Your task to perform on an android device: Google the capital of Canada Image 0: 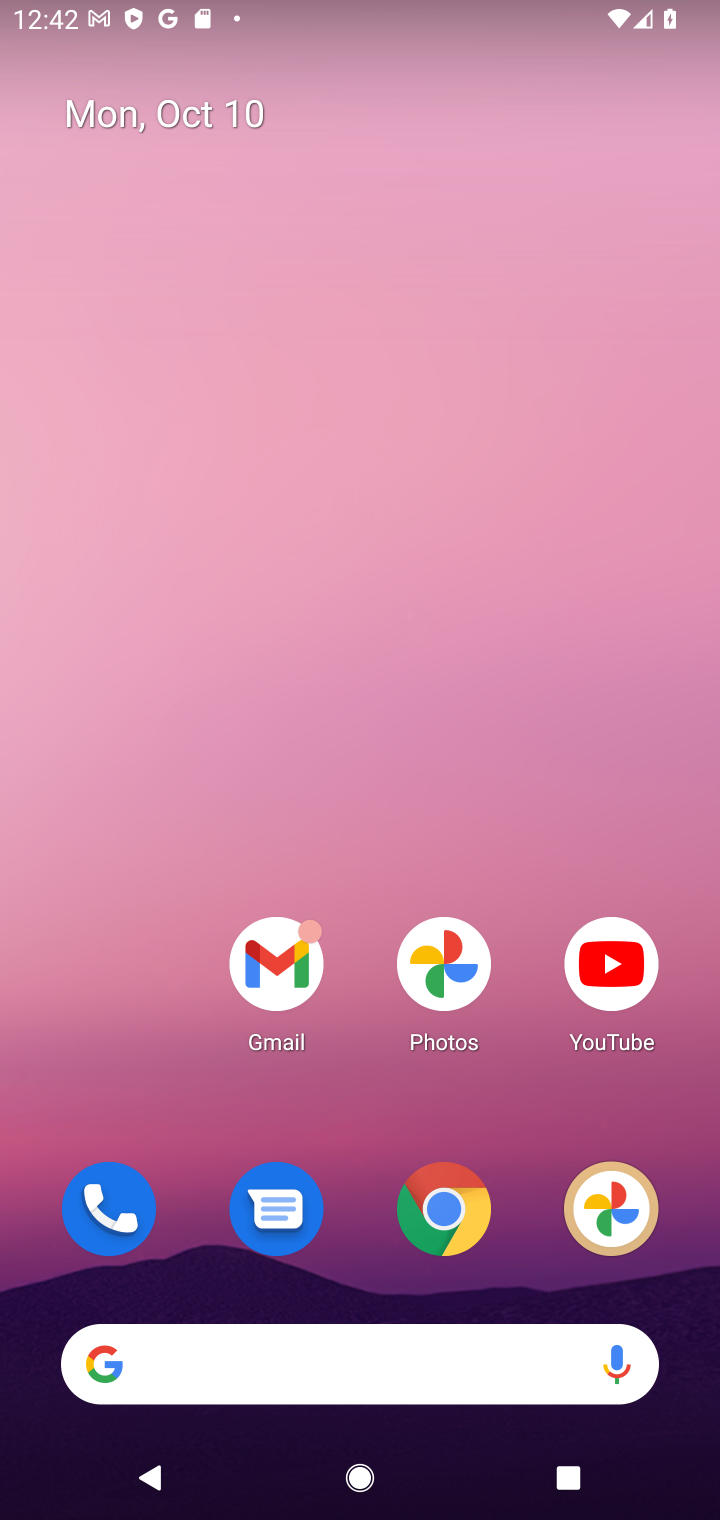
Step 0: drag from (433, 511) to (433, 233)
Your task to perform on an android device: Google the capital of Canada Image 1: 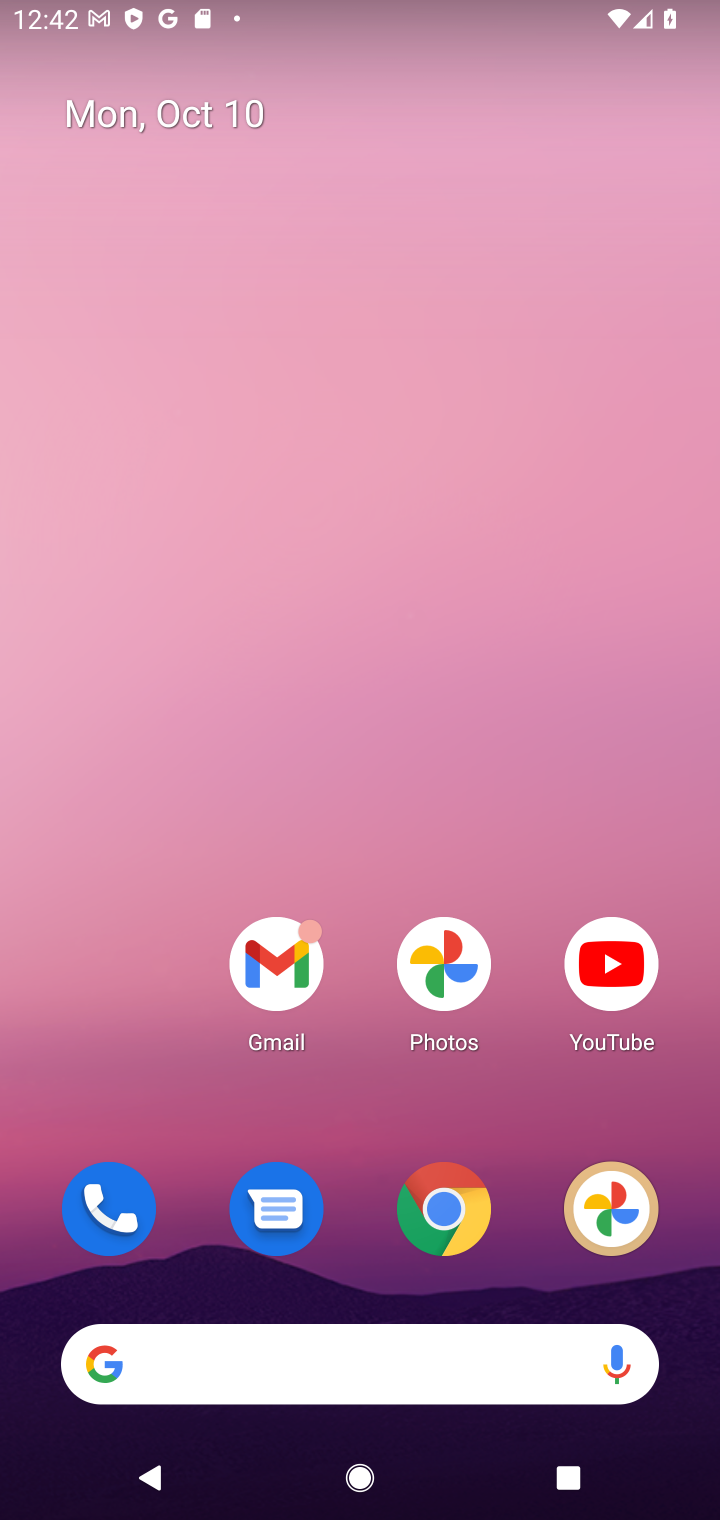
Step 1: drag from (320, 1023) to (320, 195)
Your task to perform on an android device: Google the capital of Canada Image 2: 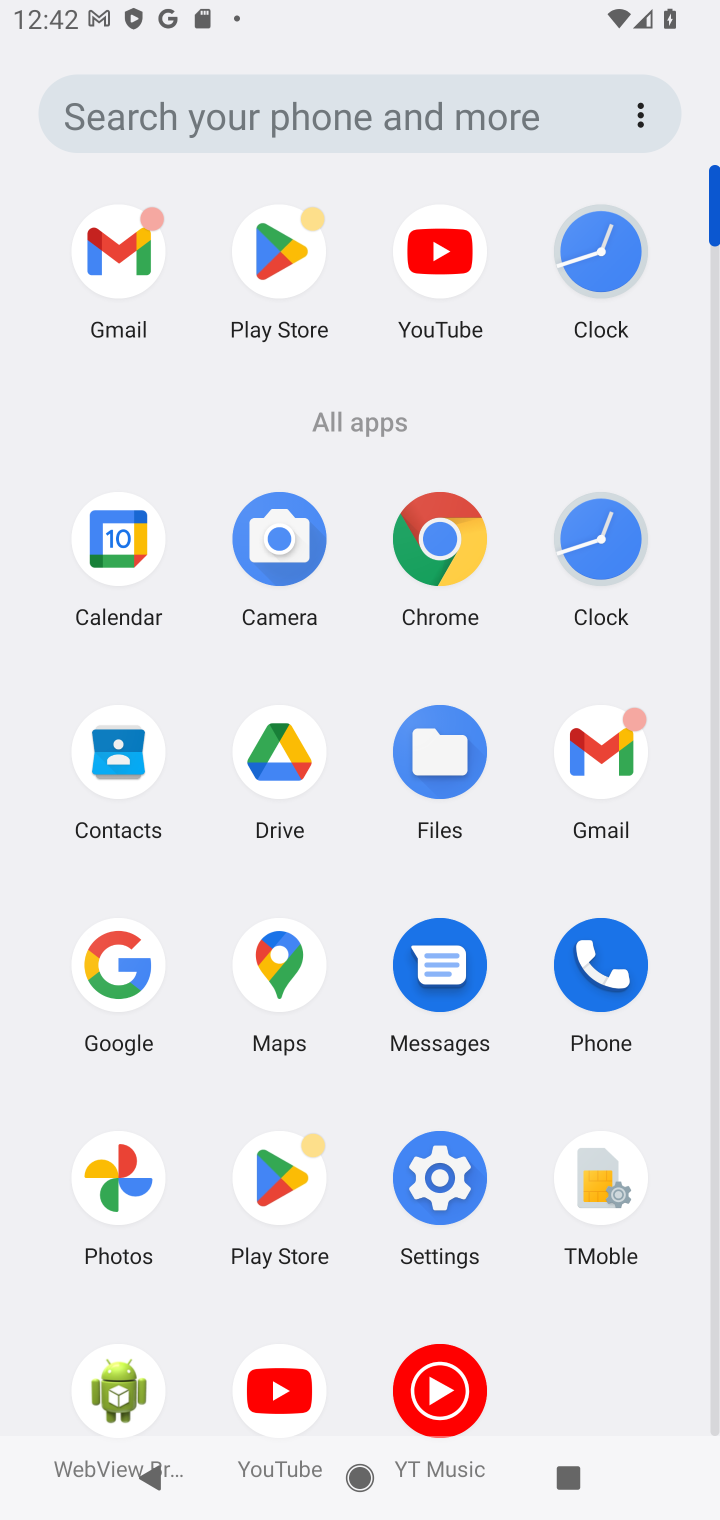
Step 2: click (82, 963)
Your task to perform on an android device: Google the capital of Canada Image 3: 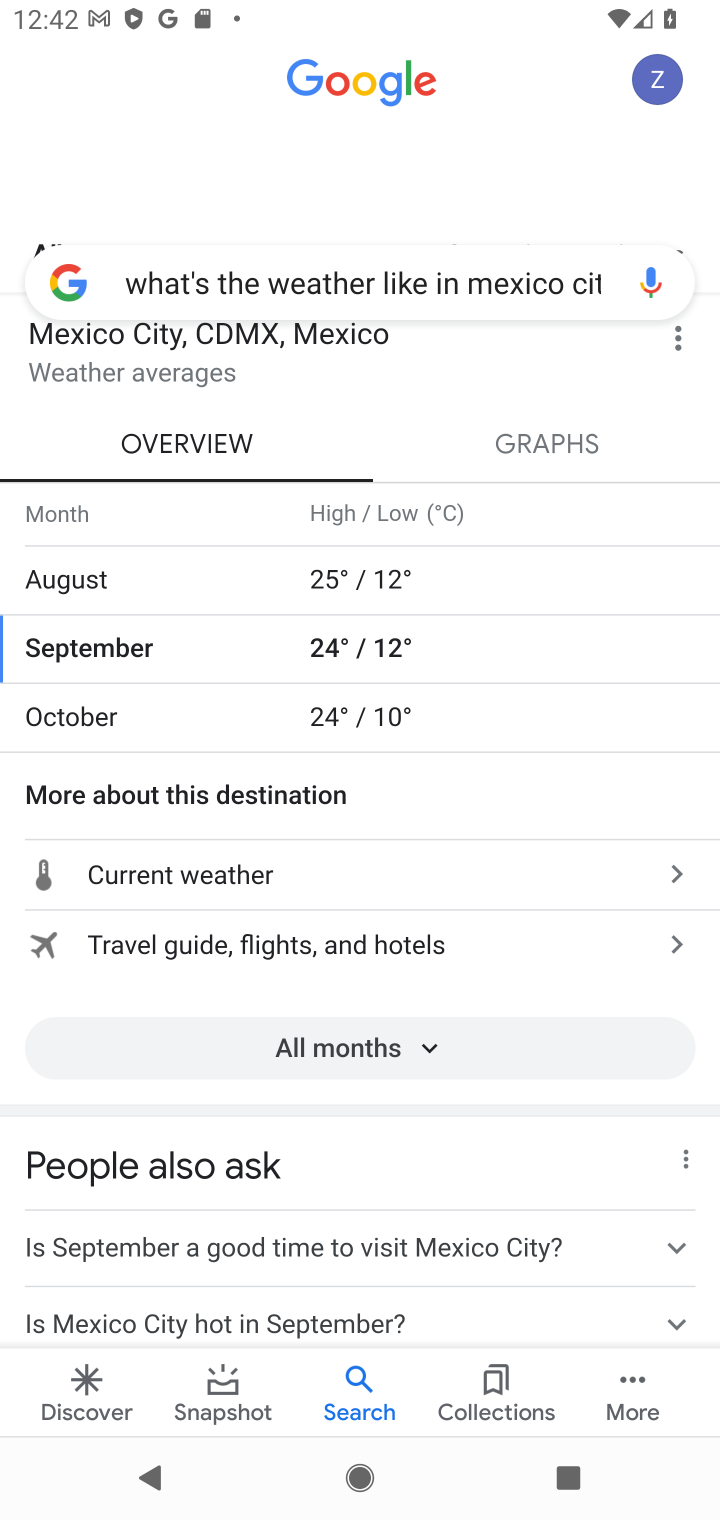
Step 3: click (417, 272)
Your task to perform on an android device: Google the capital of Canada Image 4: 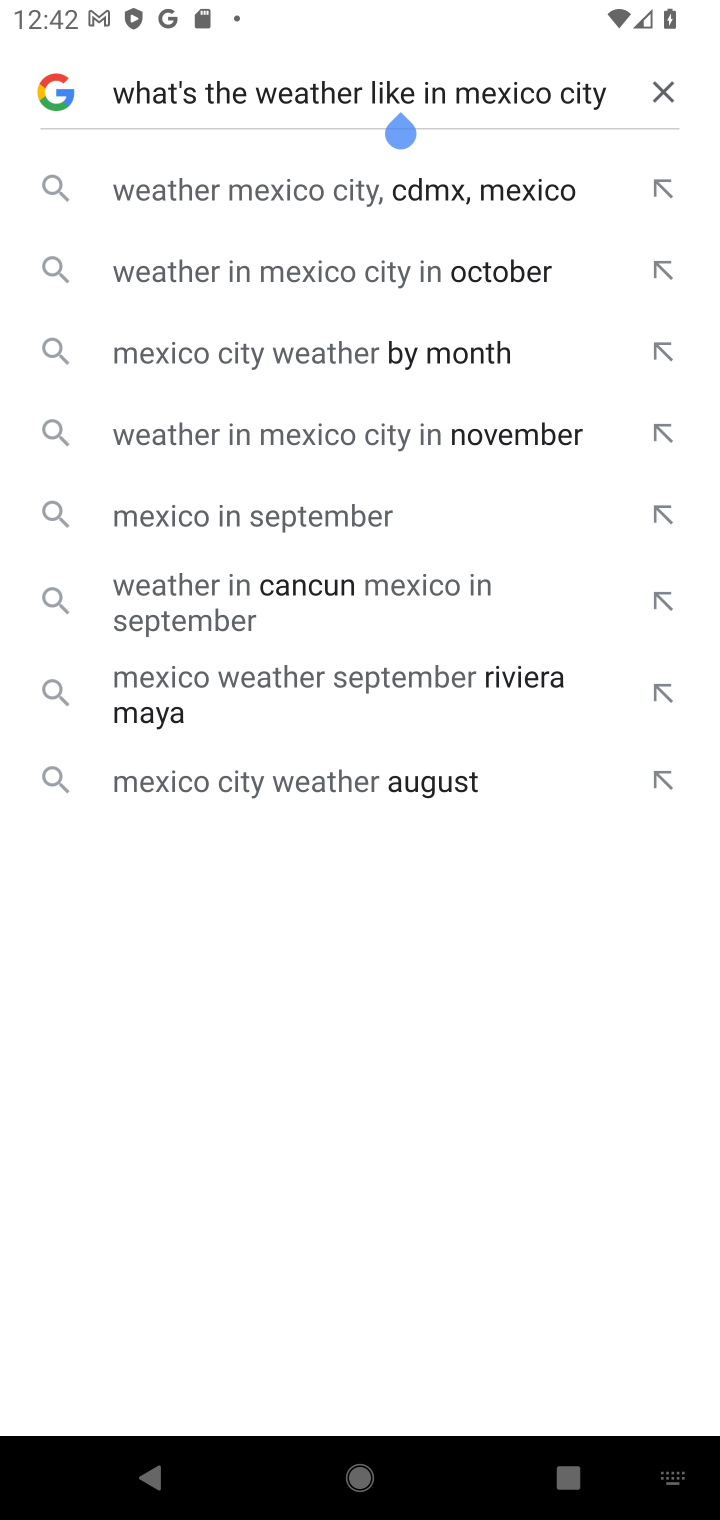
Step 4: click (668, 80)
Your task to perform on an android device: Google the capital of Canada Image 5: 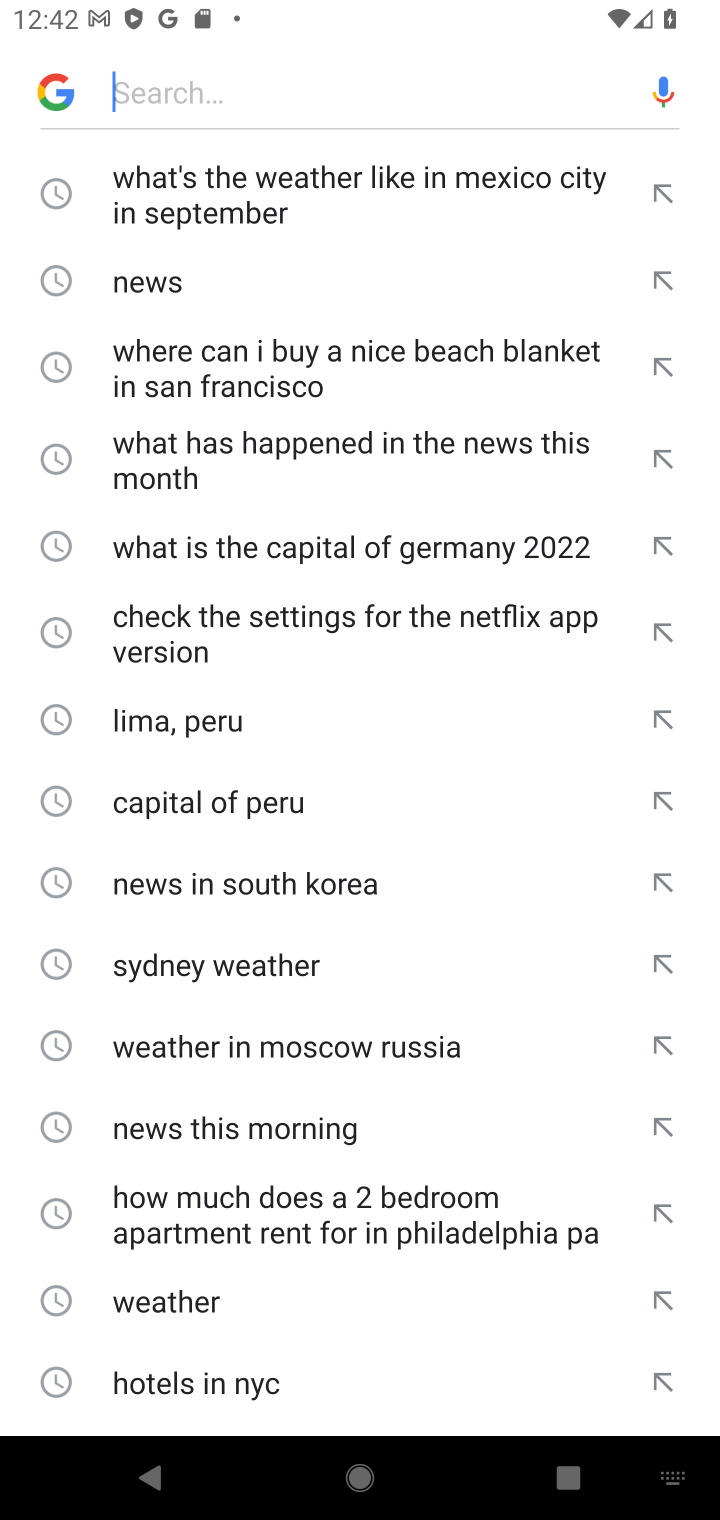
Step 5: type "Google the capital of Canada"
Your task to perform on an android device: Google the capital of Canada Image 6: 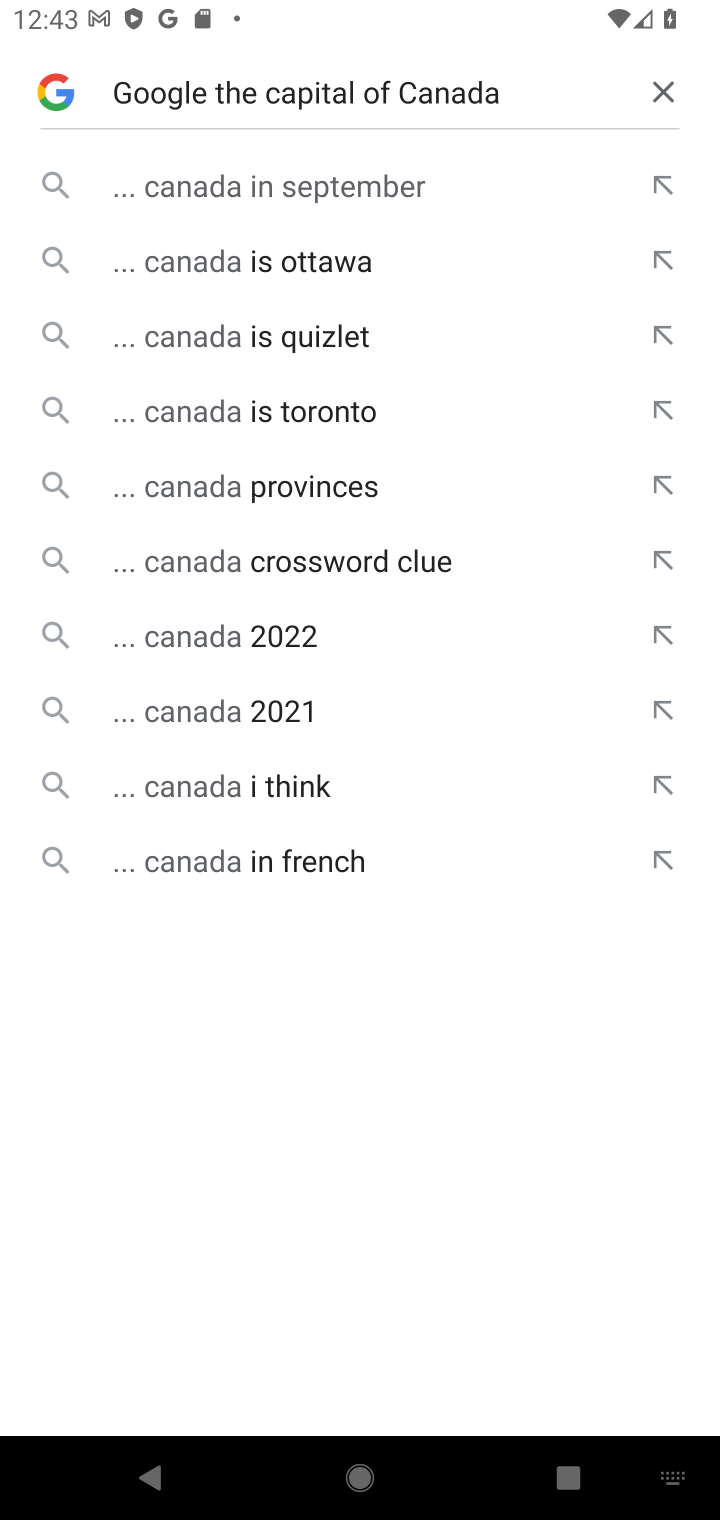
Step 6: click (261, 189)
Your task to perform on an android device: Google the capital of Canada Image 7: 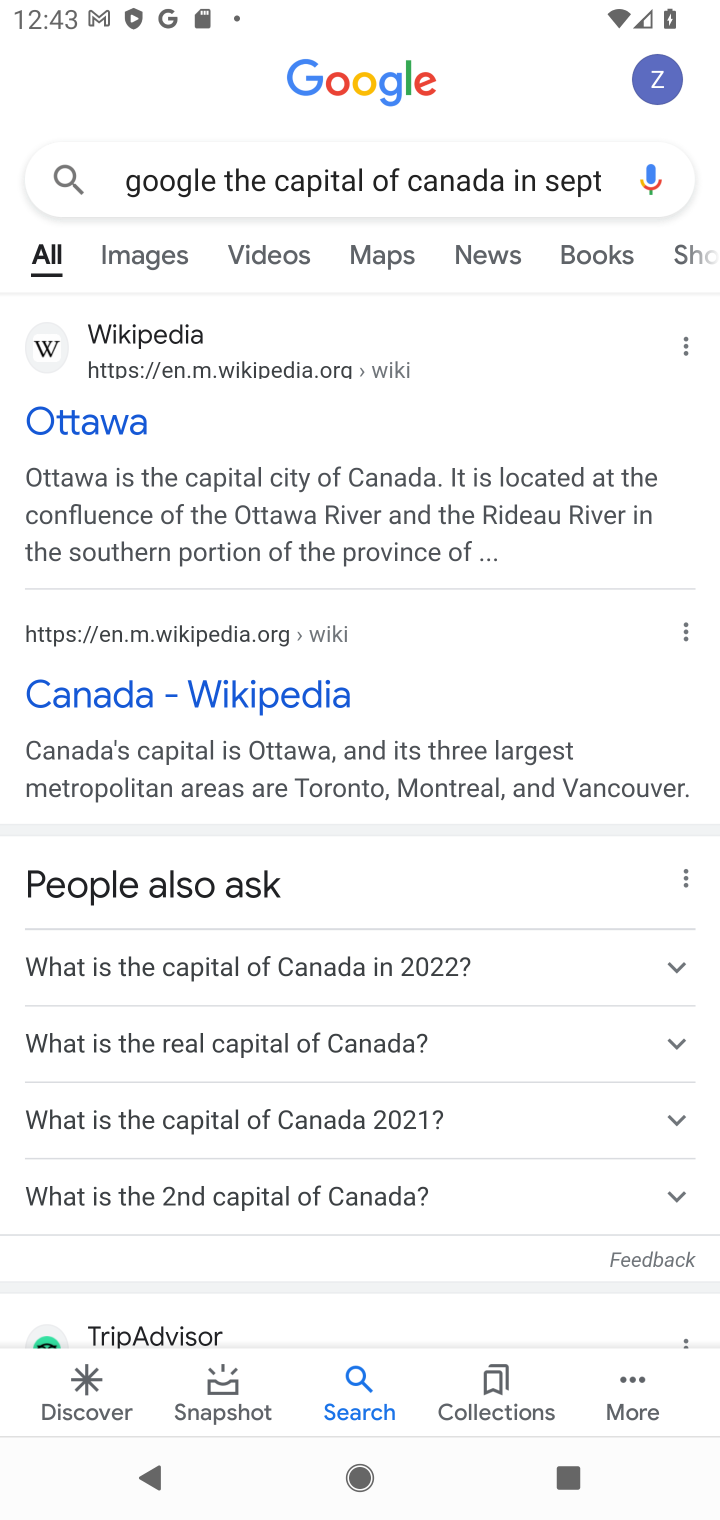
Step 7: click (143, 694)
Your task to perform on an android device: Google the capital of Canada Image 8: 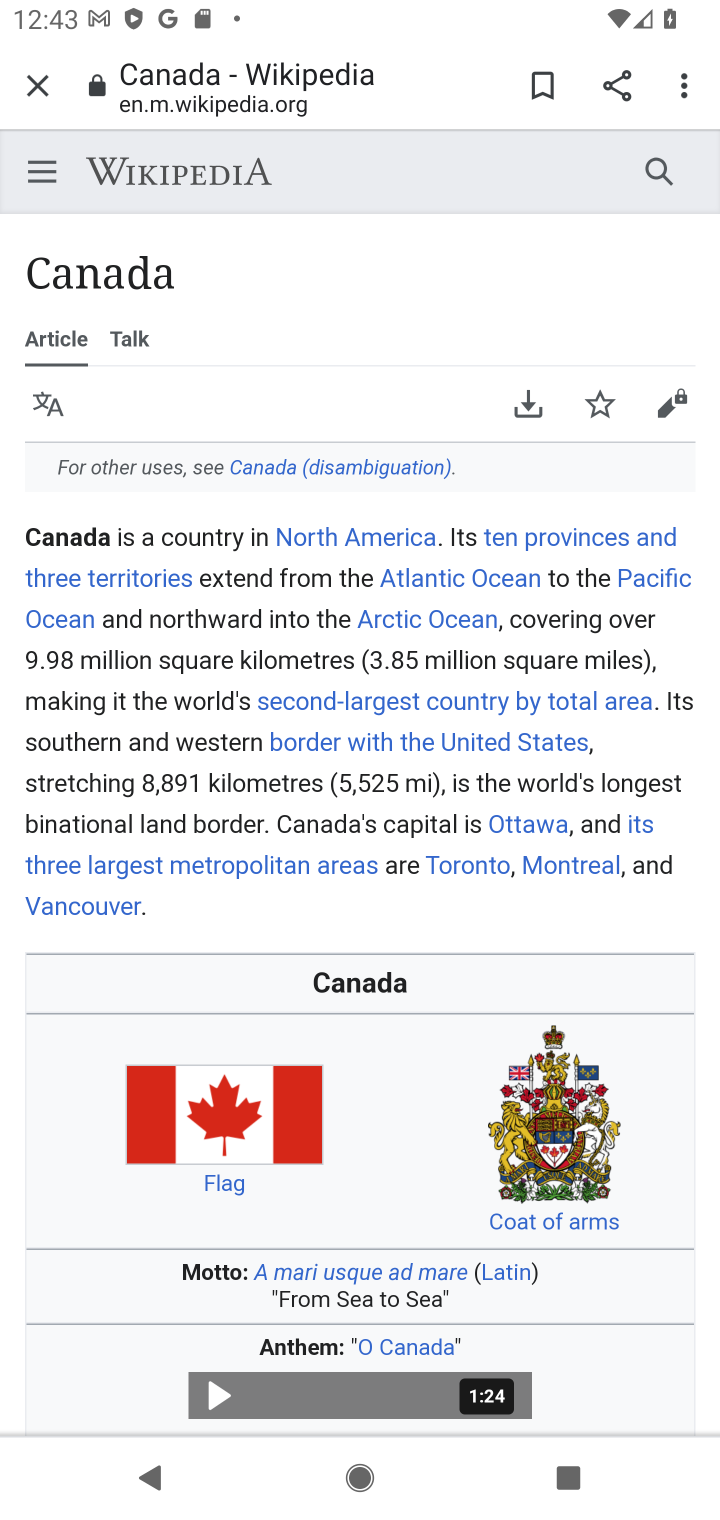
Step 8: task complete